Your task to perform on an android device: Open settings Image 0: 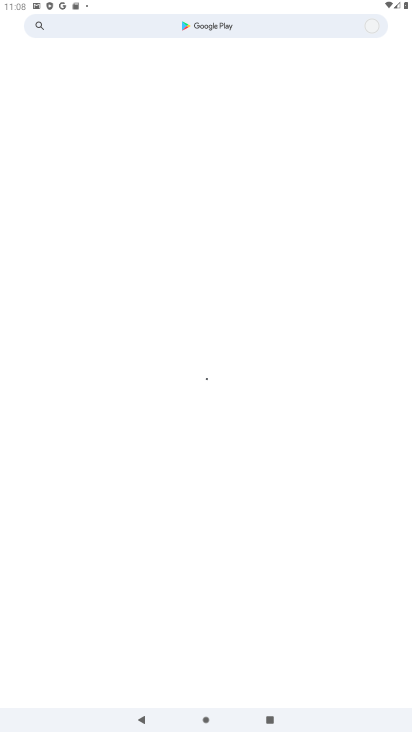
Step 0: press home button
Your task to perform on an android device: Open settings Image 1: 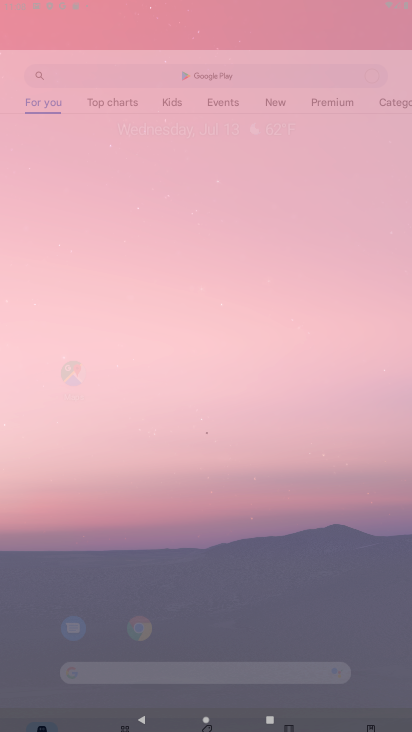
Step 1: drag from (385, 660) to (244, 17)
Your task to perform on an android device: Open settings Image 2: 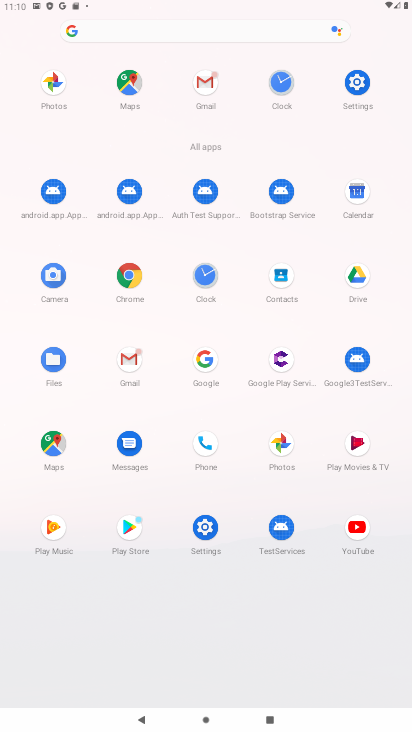
Step 2: click (197, 529)
Your task to perform on an android device: Open settings Image 3: 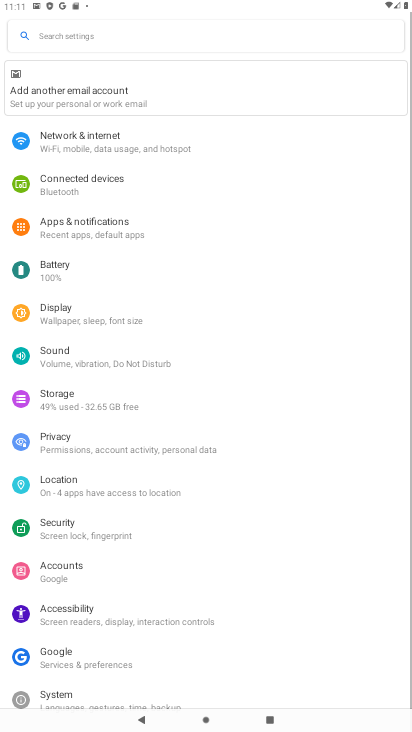
Step 3: task complete